Your task to perform on an android device: see creations saved in the google photos Image 0: 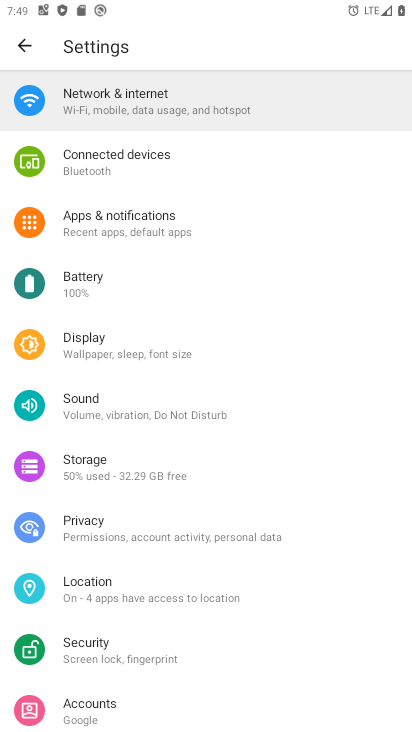
Step 0: press home button
Your task to perform on an android device: see creations saved in the google photos Image 1: 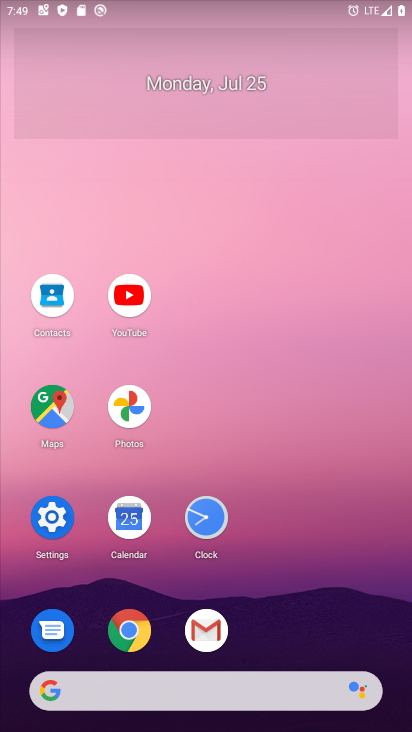
Step 1: click (121, 401)
Your task to perform on an android device: see creations saved in the google photos Image 2: 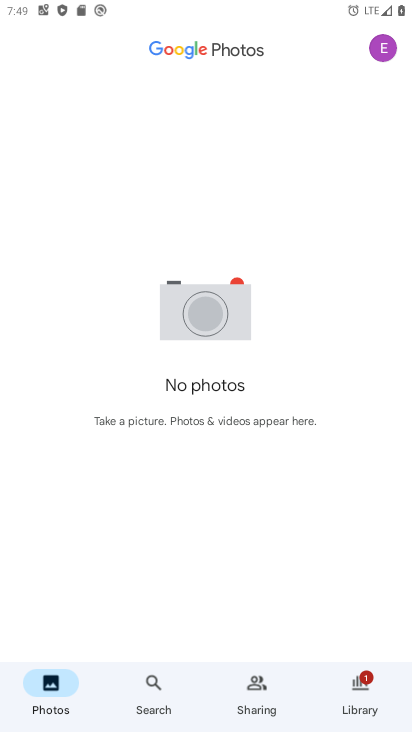
Step 2: click (150, 688)
Your task to perform on an android device: see creations saved in the google photos Image 3: 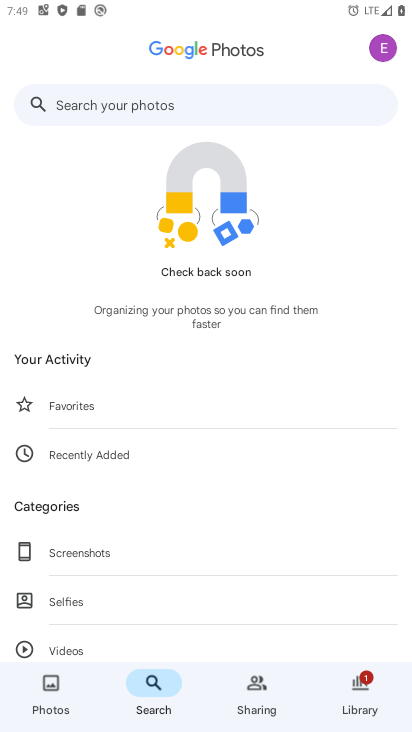
Step 3: drag from (177, 597) to (151, 265)
Your task to perform on an android device: see creations saved in the google photos Image 4: 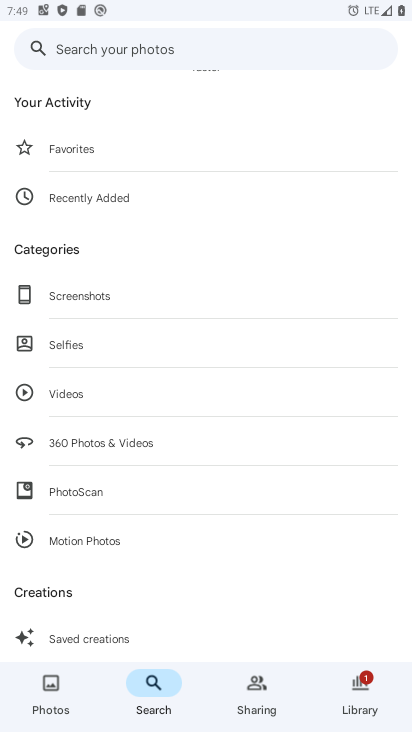
Step 4: drag from (145, 579) to (122, 349)
Your task to perform on an android device: see creations saved in the google photos Image 5: 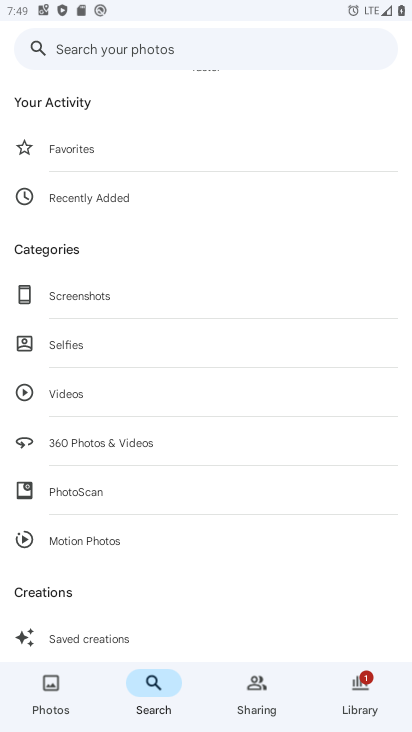
Step 5: click (43, 629)
Your task to perform on an android device: see creations saved in the google photos Image 6: 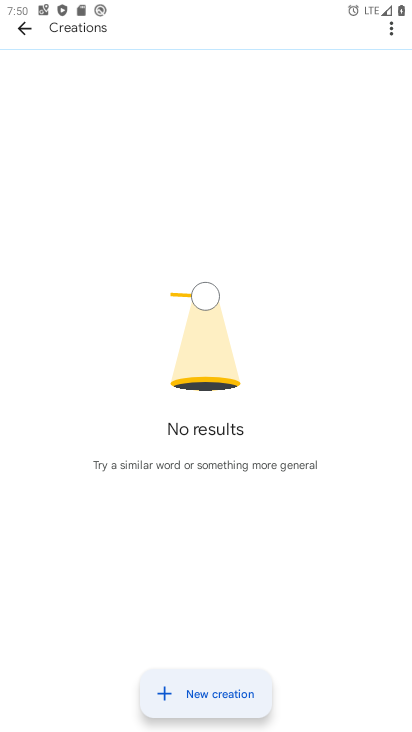
Step 6: task complete